Your task to perform on an android device: check out phone information Image 0: 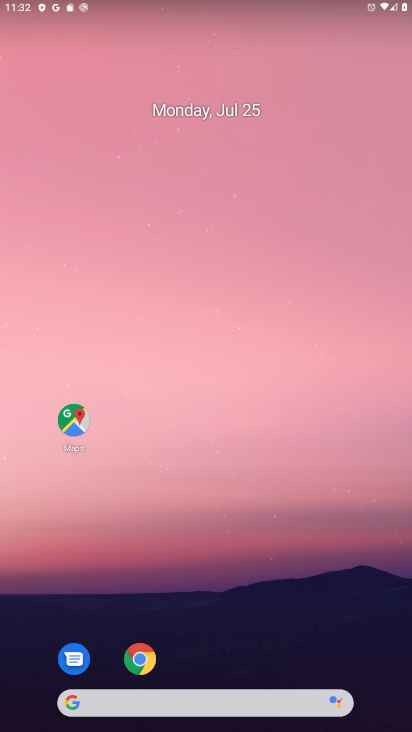
Step 0: drag from (235, 591) to (177, 166)
Your task to perform on an android device: check out phone information Image 1: 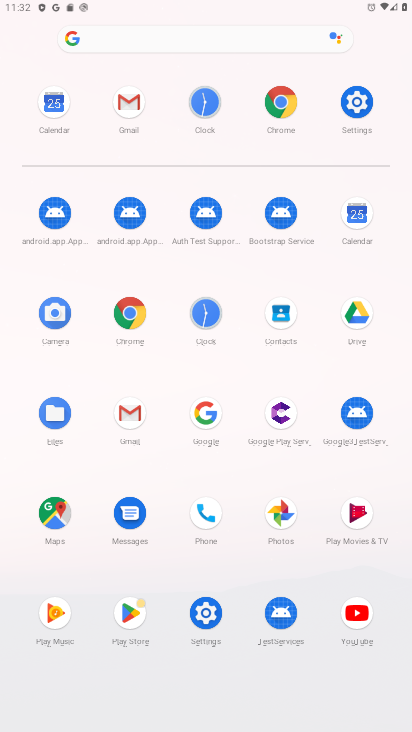
Step 1: click (357, 101)
Your task to perform on an android device: check out phone information Image 2: 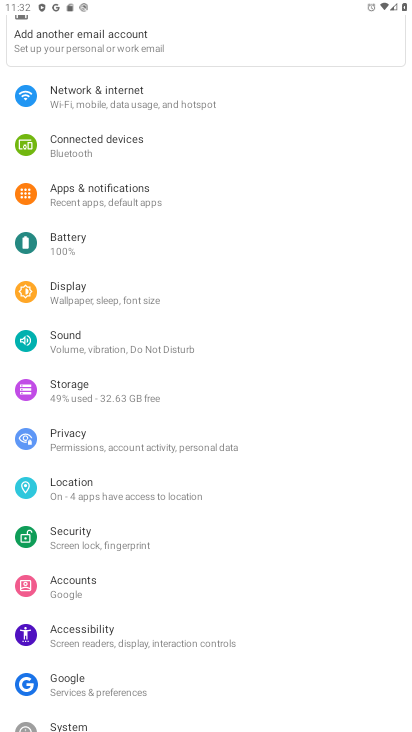
Step 2: drag from (226, 636) to (193, 234)
Your task to perform on an android device: check out phone information Image 3: 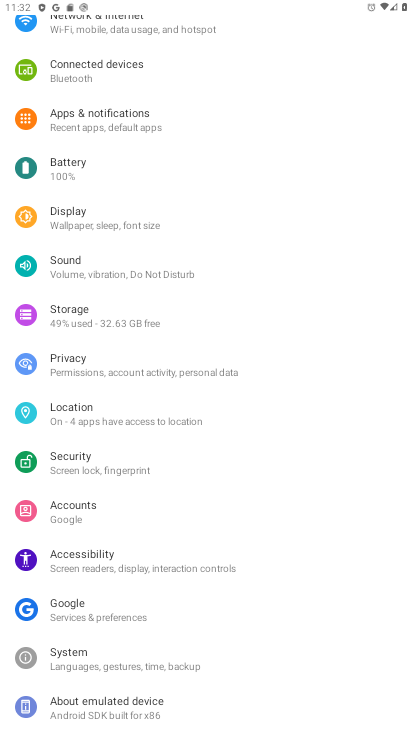
Step 3: click (106, 694)
Your task to perform on an android device: check out phone information Image 4: 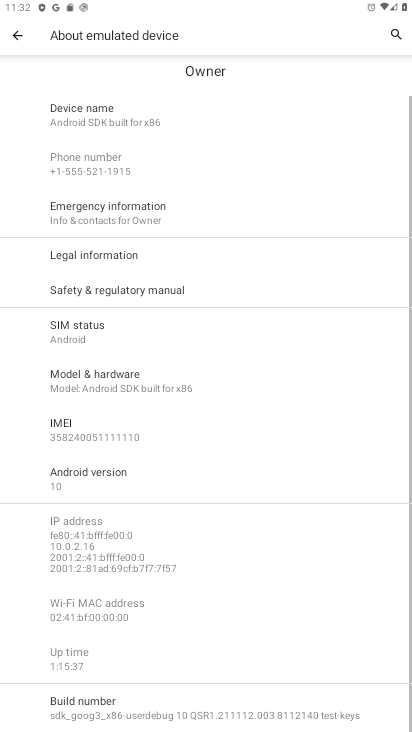
Step 4: task complete